Your task to perform on an android device: change timer sound Image 0: 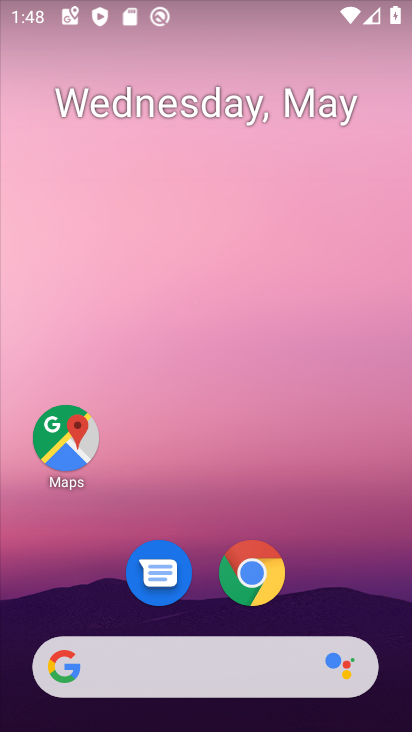
Step 0: drag from (307, 602) to (327, 42)
Your task to perform on an android device: change timer sound Image 1: 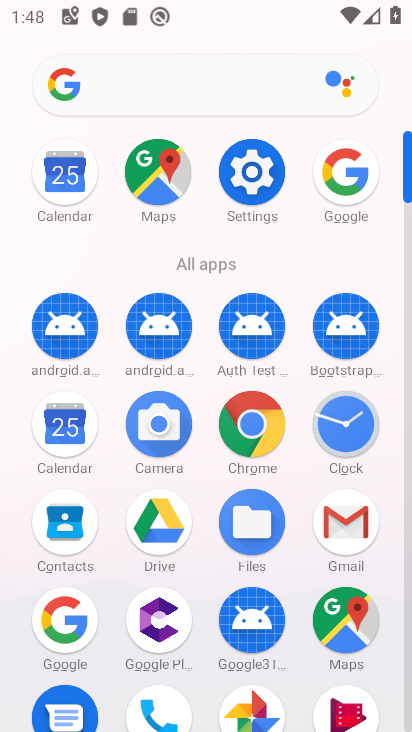
Step 1: click (329, 424)
Your task to perform on an android device: change timer sound Image 2: 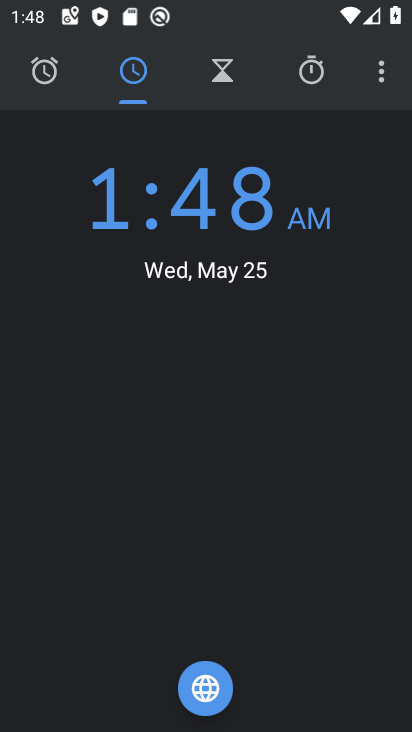
Step 2: click (387, 78)
Your task to perform on an android device: change timer sound Image 3: 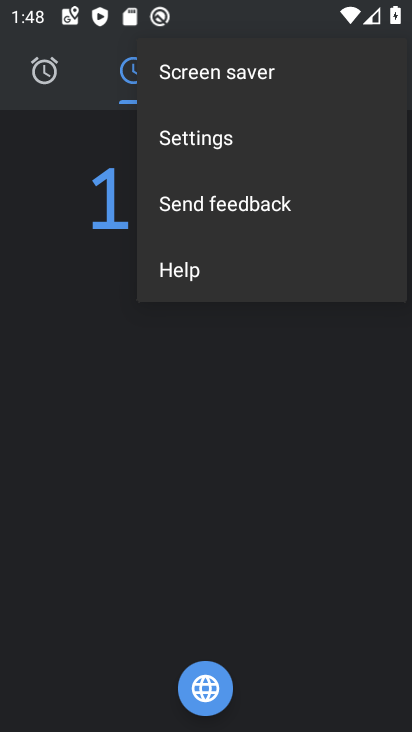
Step 3: click (219, 140)
Your task to perform on an android device: change timer sound Image 4: 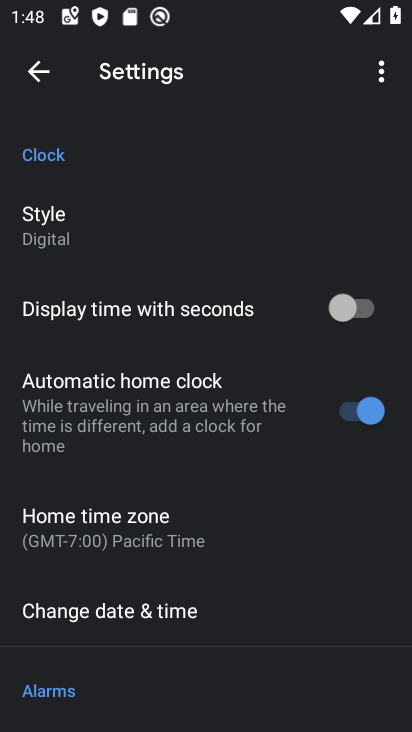
Step 4: drag from (173, 646) to (198, 353)
Your task to perform on an android device: change timer sound Image 5: 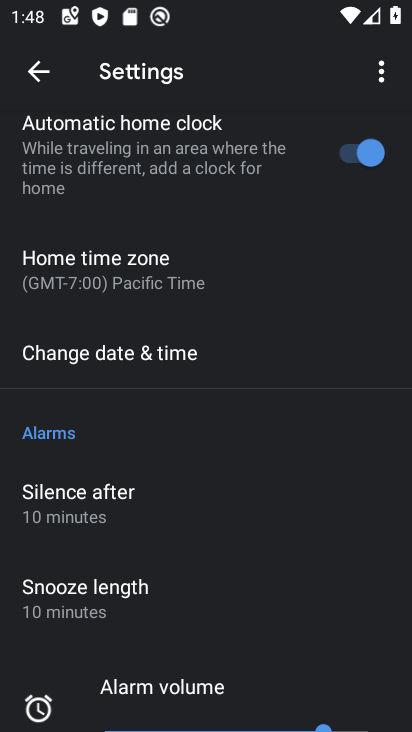
Step 5: drag from (186, 630) to (244, 284)
Your task to perform on an android device: change timer sound Image 6: 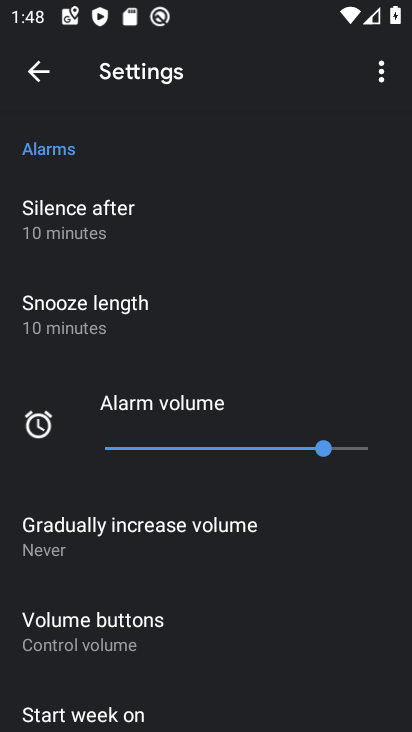
Step 6: drag from (192, 625) to (233, 397)
Your task to perform on an android device: change timer sound Image 7: 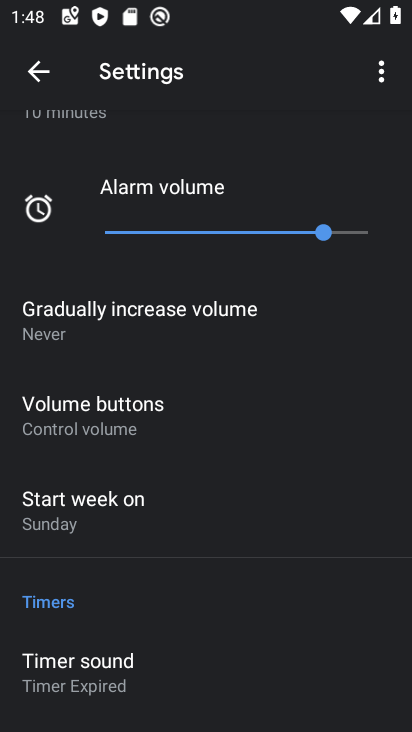
Step 7: drag from (167, 637) to (186, 421)
Your task to perform on an android device: change timer sound Image 8: 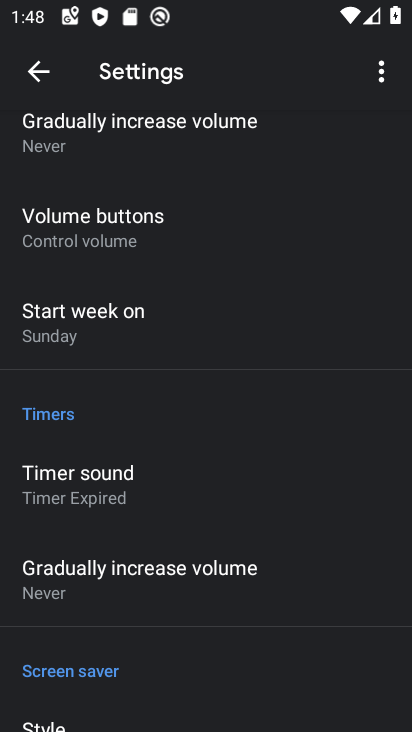
Step 8: click (140, 476)
Your task to perform on an android device: change timer sound Image 9: 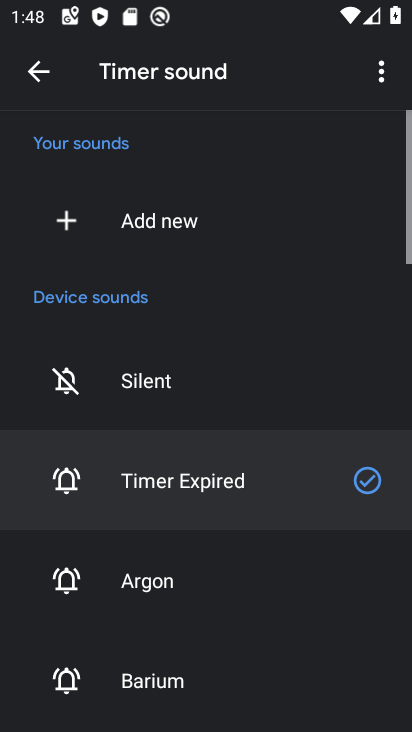
Step 9: click (110, 689)
Your task to perform on an android device: change timer sound Image 10: 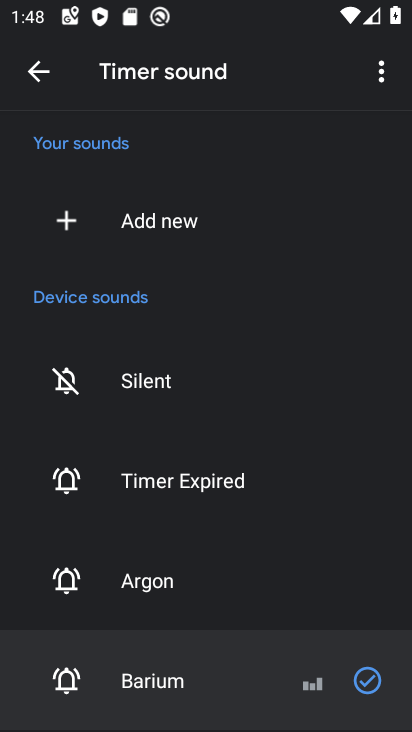
Step 10: task complete